Your task to perform on an android device: see sites visited before in the chrome app Image 0: 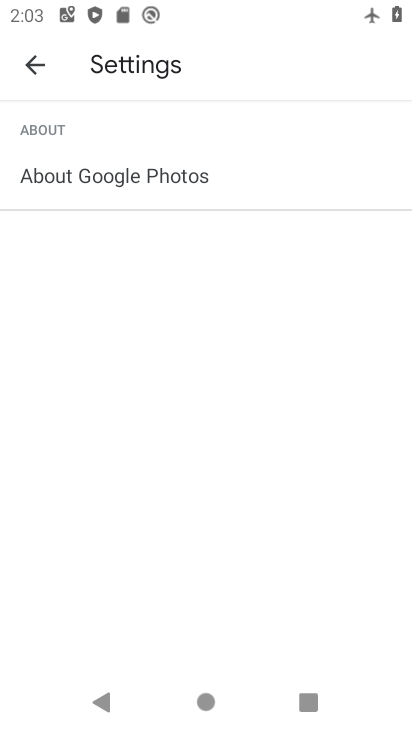
Step 0: press home button
Your task to perform on an android device: see sites visited before in the chrome app Image 1: 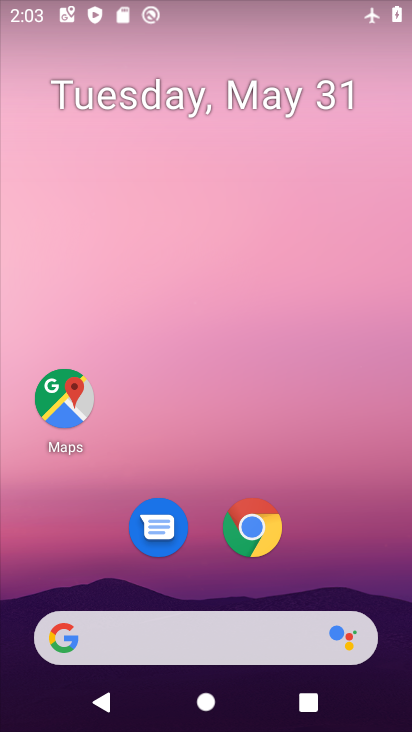
Step 1: drag from (330, 558) to (411, 55)
Your task to perform on an android device: see sites visited before in the chrome app Image 2: 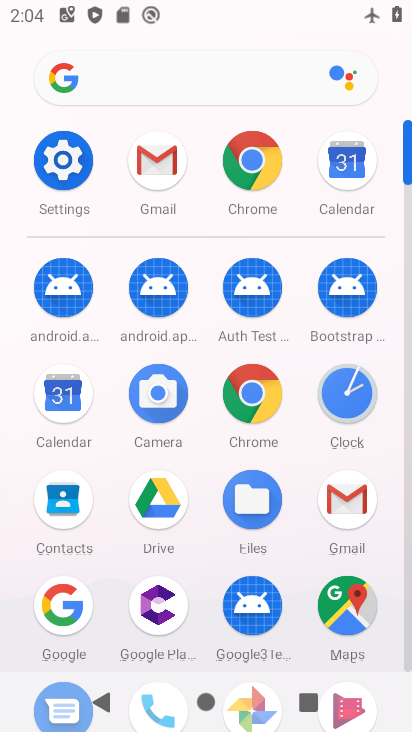
Step 2: click (270, 173)
Your task to perform on an android device: see sites visited before in the chrome app Image 3: 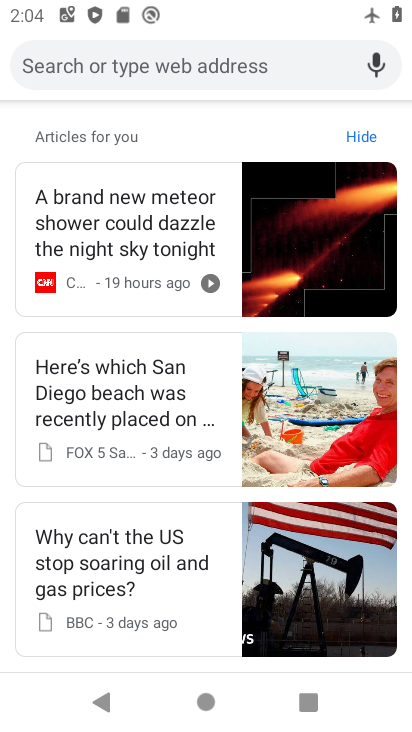
Step 3: task complete